Your task to perform on an android device: Open Google Chrome and open the bookmarks view Image 0: 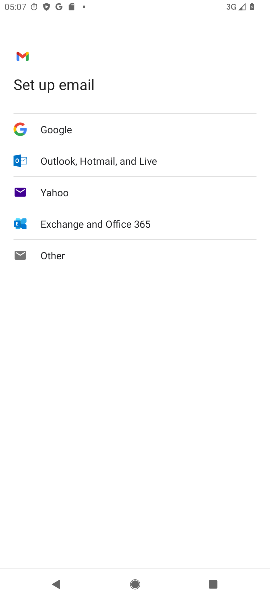
Step 0: press home button
Your task to perform on an android device: Open Google Chrome and open the bookmarks view Image 1: 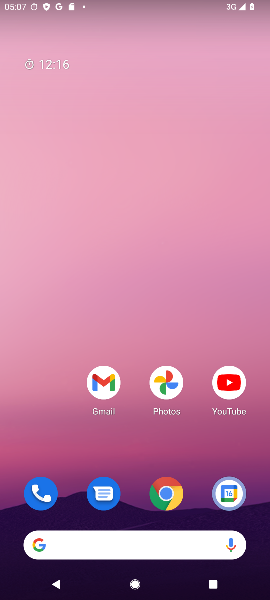
Step 1: drag from (56, 447) to (58, 134)
Your task to perform on an android device: Open Google Chrome and open the bookmarks view Image 2: 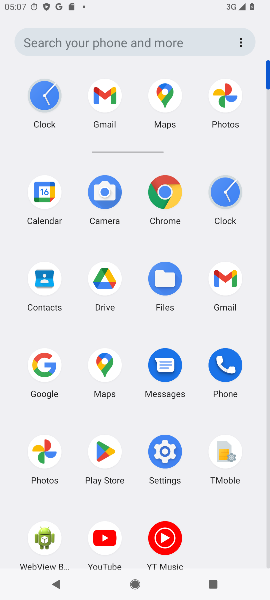
Step 2: click (166, 188)
Your task to perform on an android device: Open Google Chrome and open the bookmarks view Image 3: 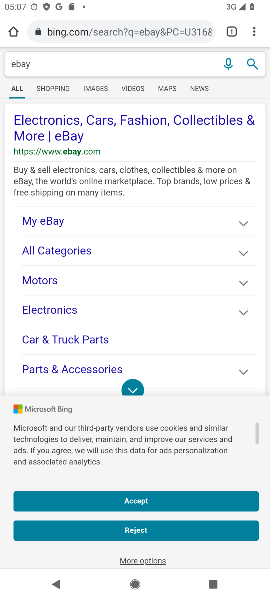
Step 3: click (252, 34)
Your task to perform on an android device: Open Google Chrome and open the bookmarks view Image 4: 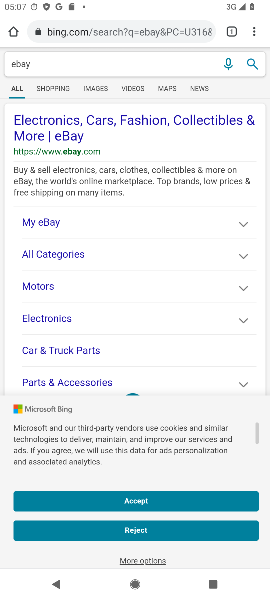
Step 4: click (252, 34)
Your task to perform on an android device: Open Google Chrome and open the bookmarks view Image 5: 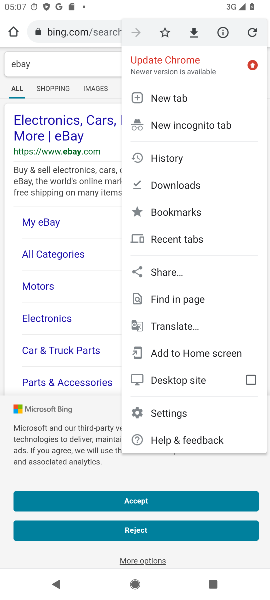
Step 5: click (185, 214)
Your task to perform on an android device: Open Google Chrome and open the bookmarks view Image 6: 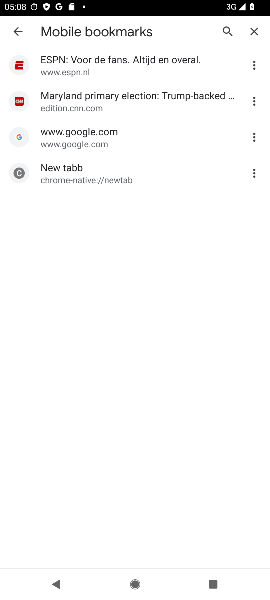
Step 6: task complete